Your task to perform on an android device: What is the news today? Image 0: 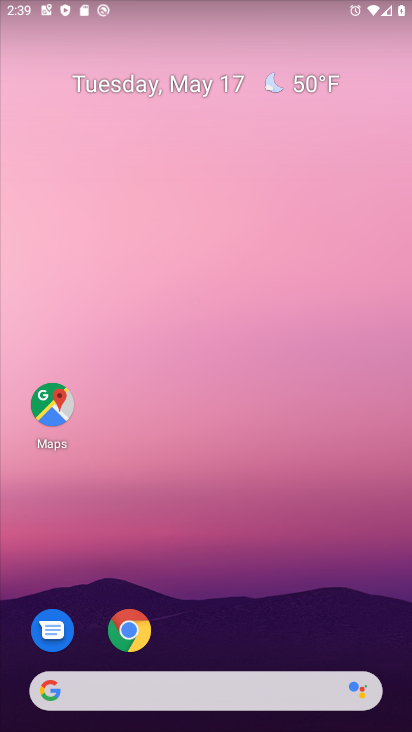
Step 0: click (250, 316)
Your task to perform on an android device: What is the news today? Image 1: 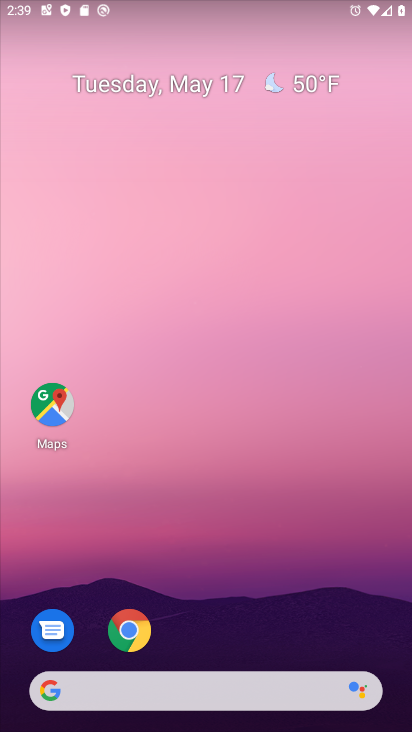
Step 1: drag from (244, 668) to (359, 189)
Your task to perform on an android device: What is the news today? Image 2: 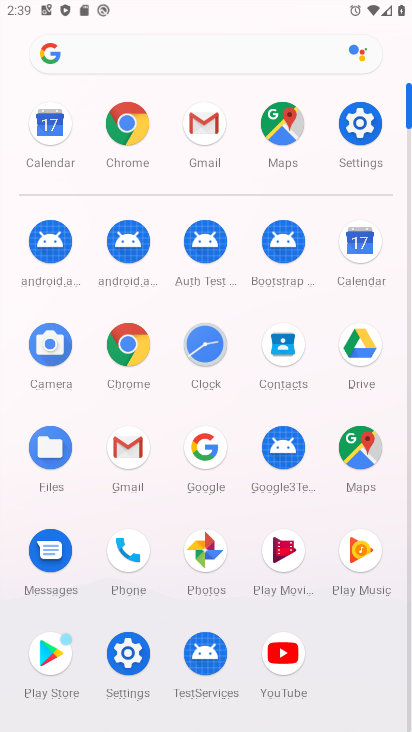
Step 2: click (217, 445)
Your task to perform on an android device: What is the news today? Image 3: 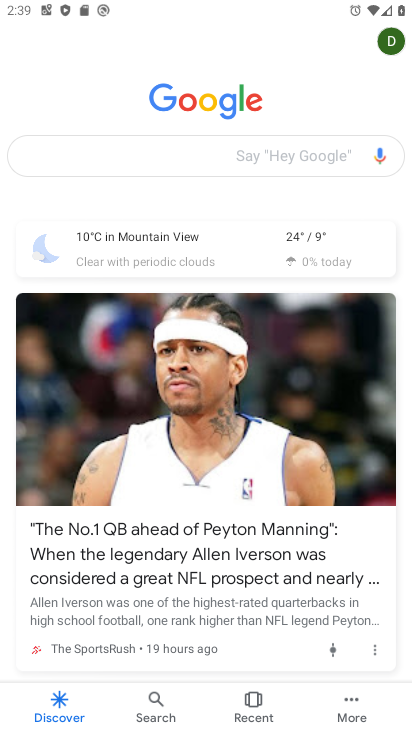
Step 3: click (124, 151)
Your task to perform on an android device: What is the news today? Image 4: 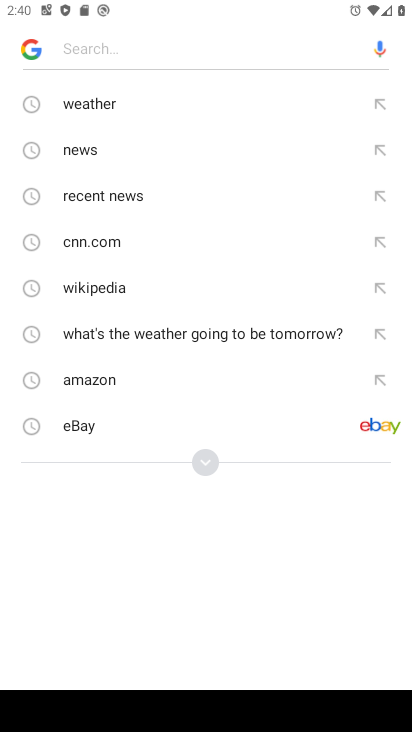
Step 4: type "what is the news today?"
Your task to perform on an android device: What is the news today? Image 5: 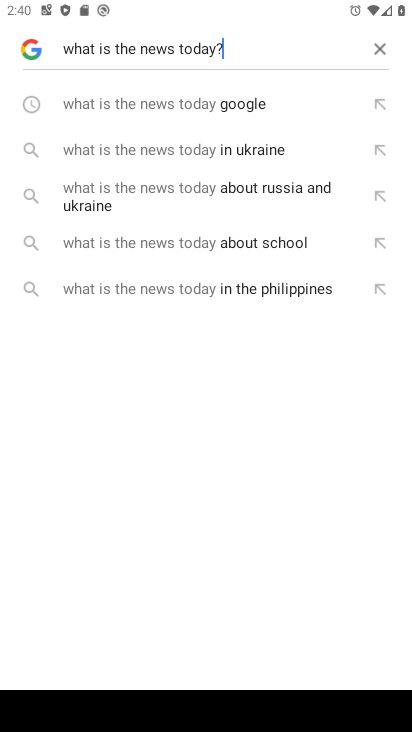
Step 5: click (129, 97)
Your task to perform on an android device: What is the news today? Image 6: 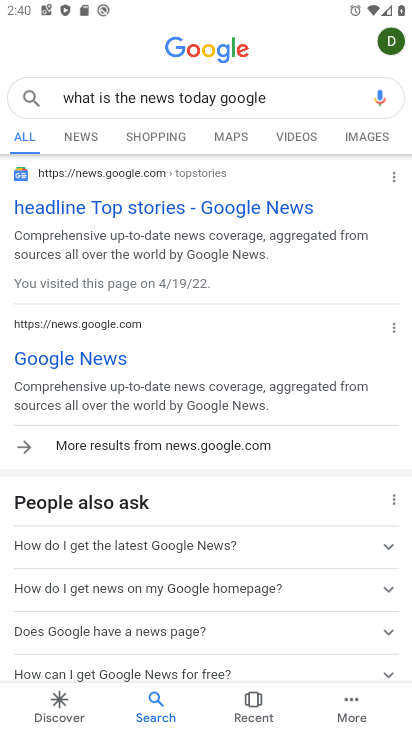
Step 6: click (87, 212)
Your task to perform on an android device: What is the news today? Image 7: 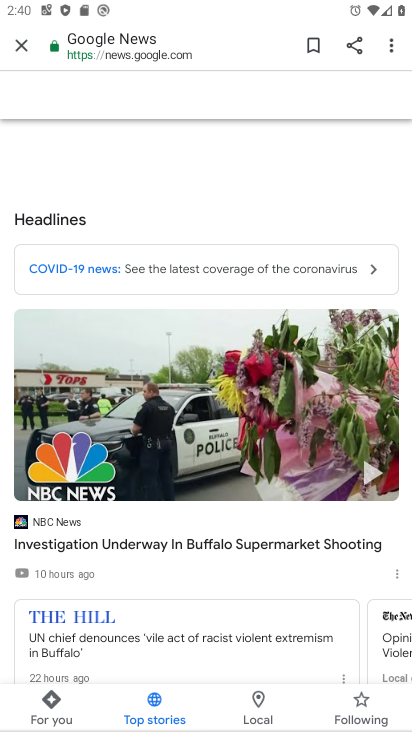
Step 7: task complete